Your task to perform on an android device: allow notifications from all sites in the chrome app Image 0: 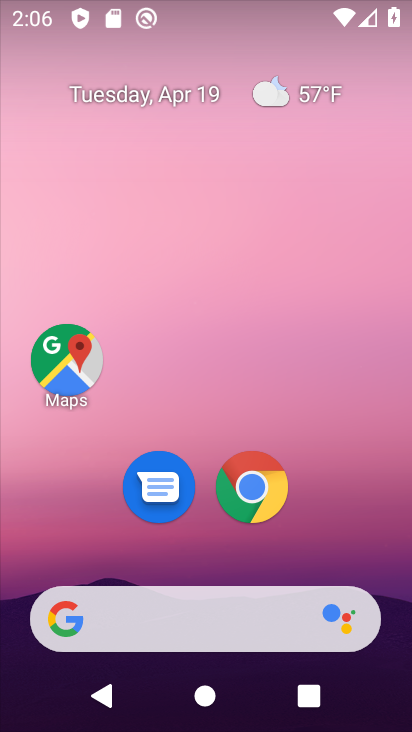
Step 0: click (237, 508)
Your task to perform on an android device: allow notifications from all sites in the chrome app Image 1: 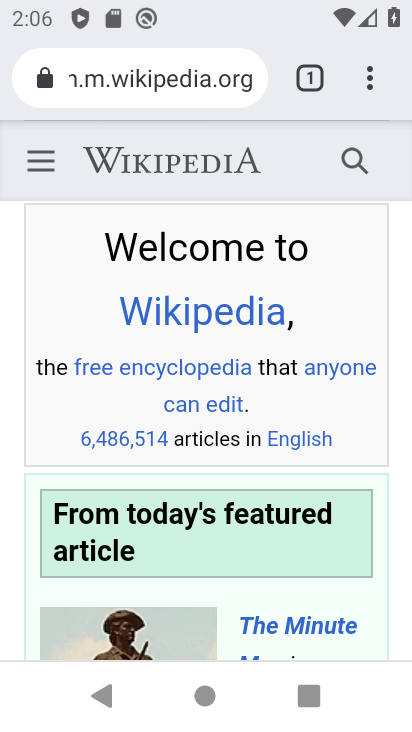
Step 1: click (393, 73)
Your task to perform on an android device: allow notifications from all sites in the chrome app Image 2: 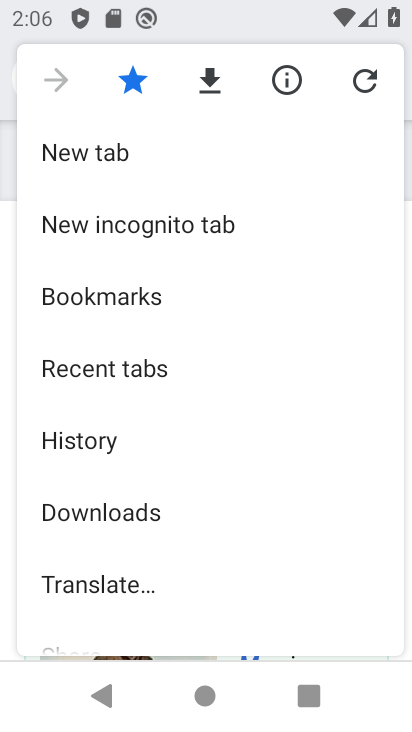
Step 2: drag from (133, 564) to (154, 207)
Your task to perform on an android device: allow notifications from all sites in the chrome app Image 3: 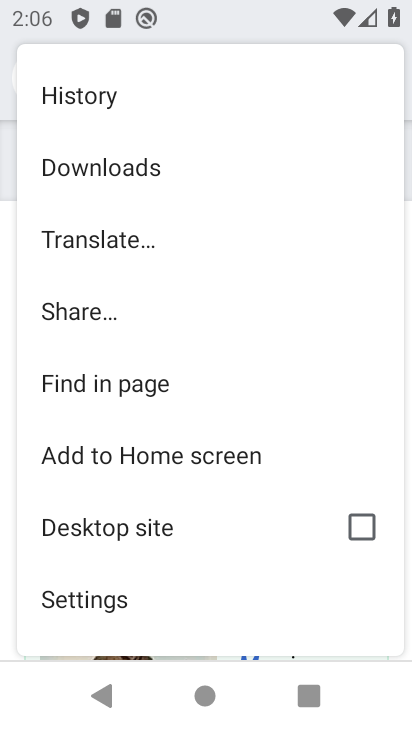
Step 3: drag from (124, 157) to (157, 593)
Your task to perform on an android device: allow notifications from all sites in the chrome app Image 4: 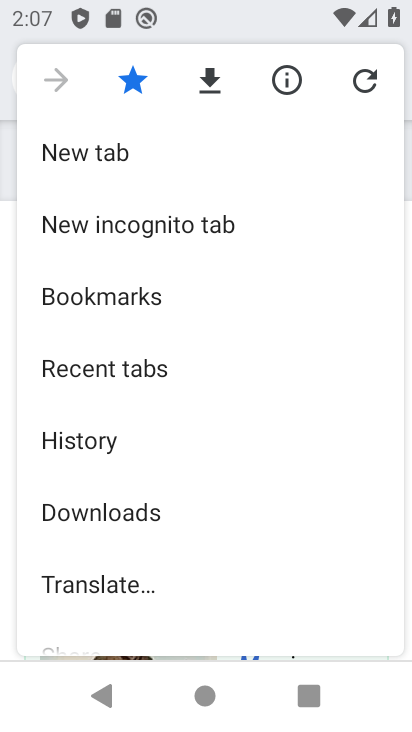
Step 4: drag from (61, 590) to (86, 208)
Your task to perform on an android device: allow notifications from all sites in the chrome app Image 5: 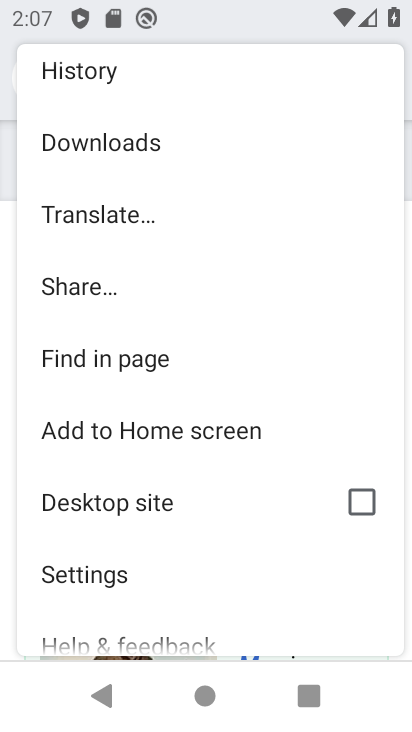
Step 5: click (104, 569)
Your task to perform on an android device: allow notifications from all sites in the chrome app Image 6: 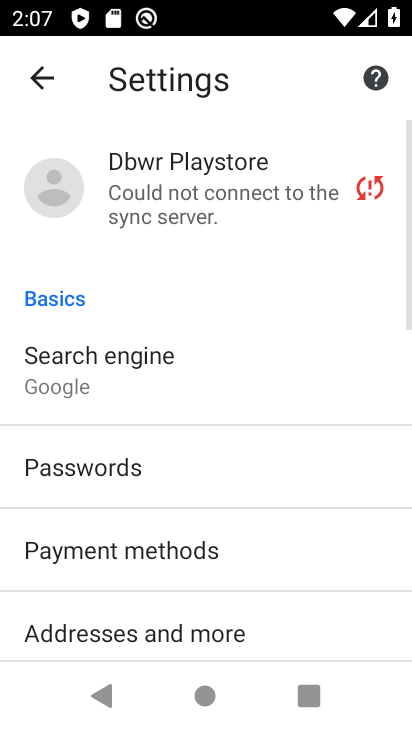
Step 6: drag from (187, 600) to (180, 96)
Your task to perform on an android device: allow notifications from all sites in the chrome app Image 7: 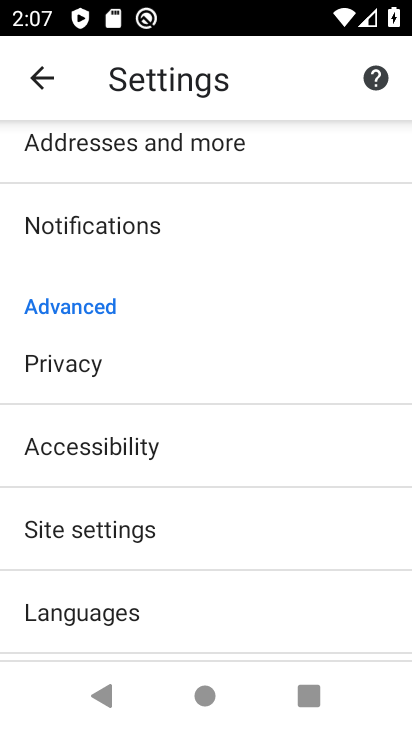
Step 7: drag from (162, 514) to (158, 76)
Your task to perform on an android device: allow notifications from all sites in the chrome app Image 8: 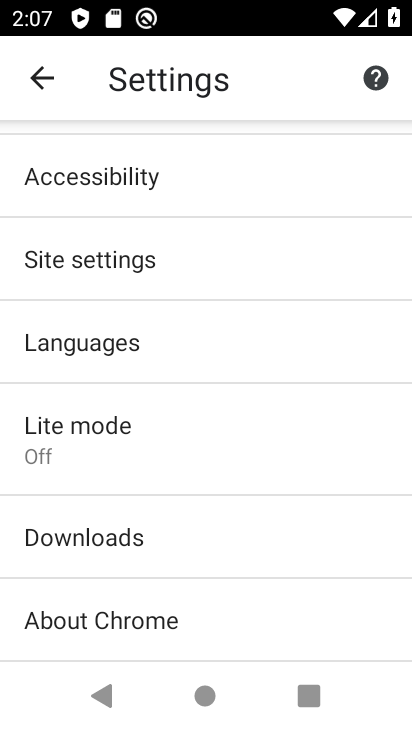
Step 8: drag from (182, 283) to (187, 562)
Your task to perform on an android device: allow notifications from all sites in the chrome app Image 9: 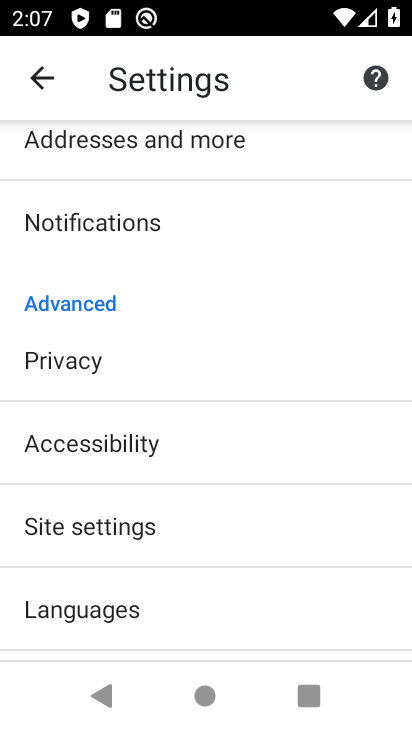
Step 9: click (132, 236)
Your task to perform on an android device: allow notifications from all sites in the chrome app Image 10: 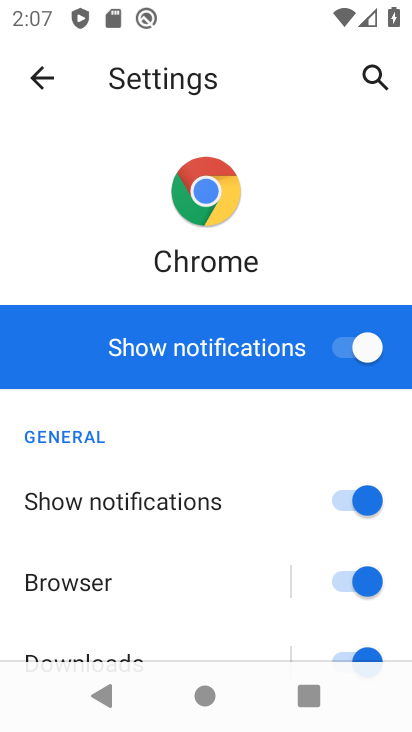
Step 10: drag from (104, 611) to (69, 225)
Your task to perform on an android device: allow notifications from all sites in the chrome app Image 11: 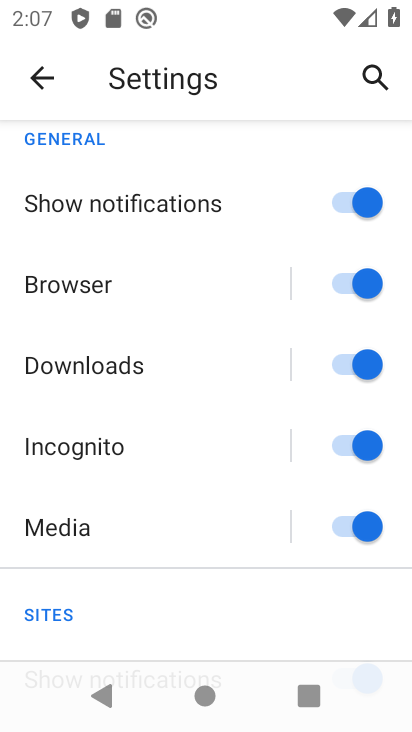
Step 11: drag from (163, 511) to (135, 132)
Your task to perform on an android device: allow notifications from all sites in the chrome app Image 12: 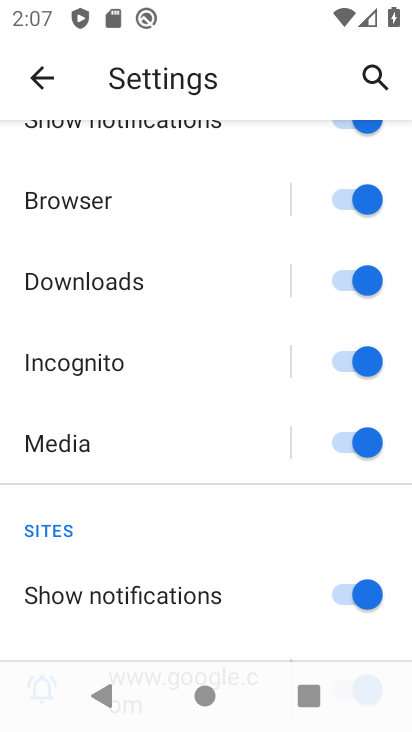
Step 12: drag from (105, 462) to (118, 120)
Your task to perform on an android device: allow notifications from all sites in the chrome app Image 13: 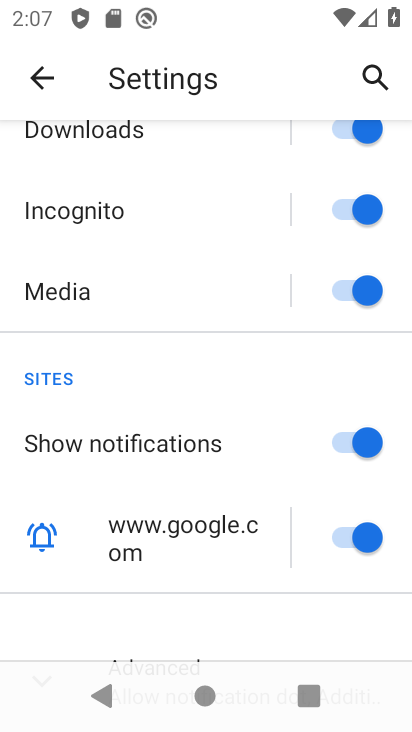
Step 13: drag from (151, 593) to (102, 188)
Your task to perform on an android device: allow notifications from all sites in the chrome app Image 14: 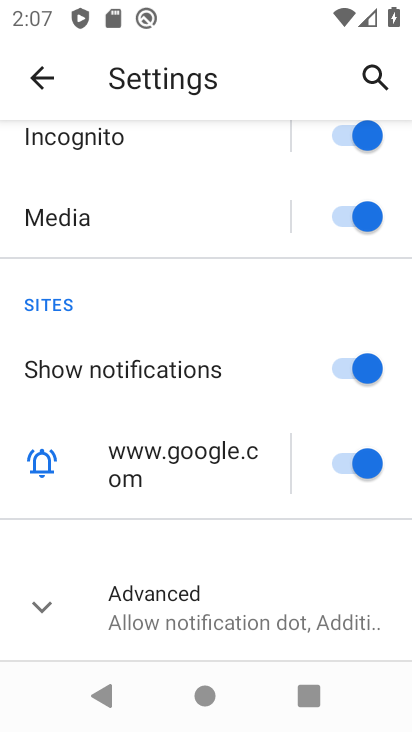
Step 14: click (143, 617)
Your task to perform on an android device: allow notifications from all sites in the chrome app Image 15: 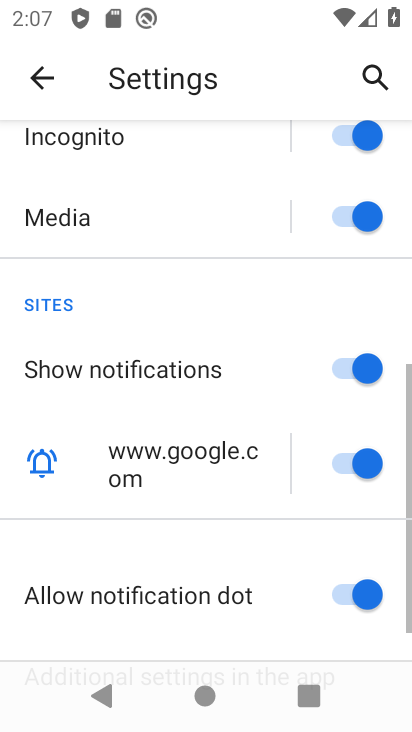
Step 15: task complete